Your task to perform on an android device: Open eBay Image 0: 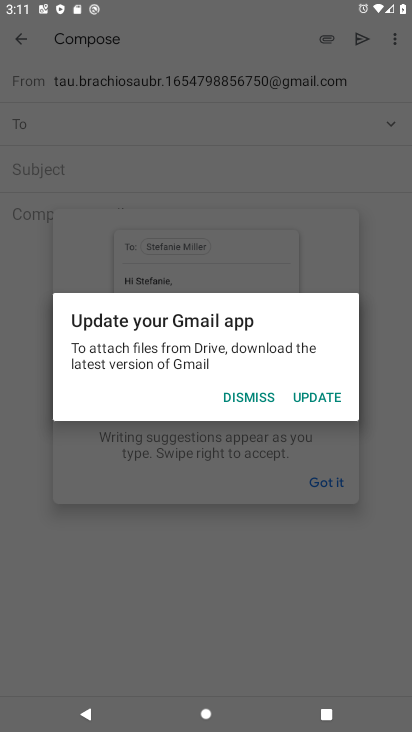
Step 0: press home button
Your task to perform on an android device: Open eBay Image 1: 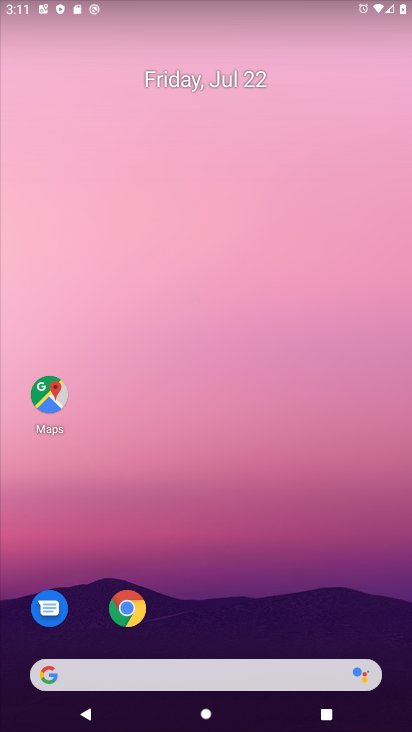
Step 1: click (139, 609)
Your task to perform on an android device: Open eBay Image 2: 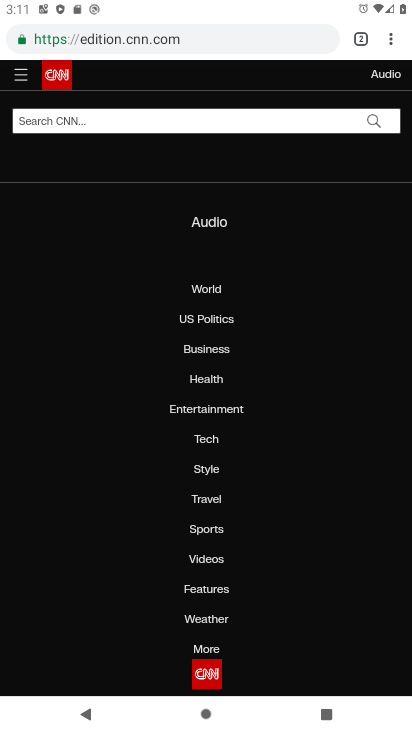
Step 2: click (355, 44)
Your task to perform on an android device: Open eBay Image 3: 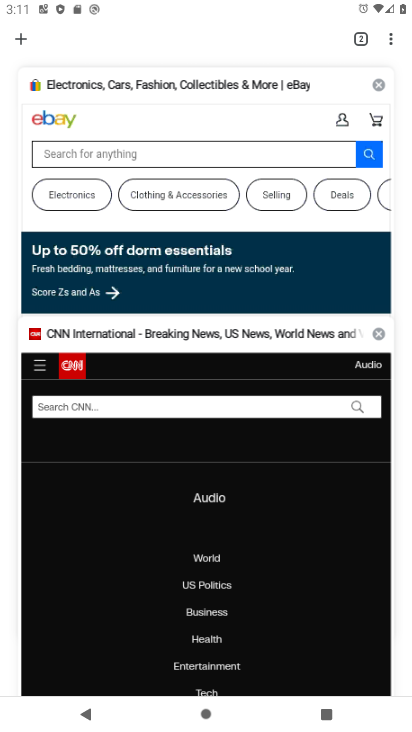
Step 3: click (321, 198)
Your task to perform on an android device: Open eBay Image 4: 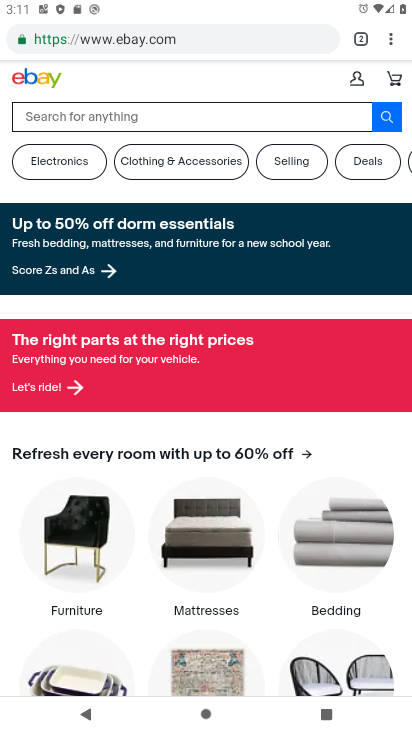
Step 4: task complete